Your task to perform on an android device: Search for a 24-inch cordless drill. Image 0: 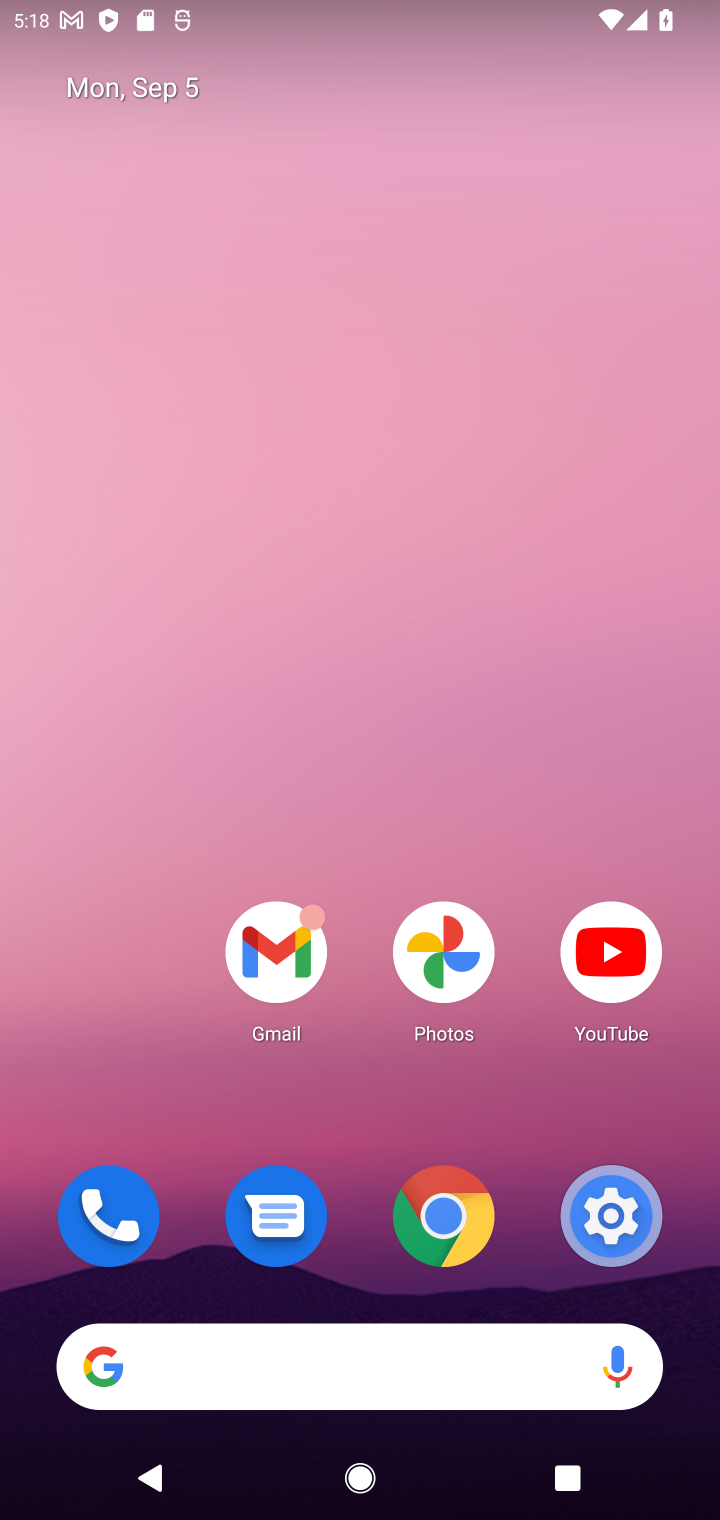
Step 0: drag from (367, 1146) to (147, 46)
Your task to perform on an android device: Search for a 24-inch cordless drill. Image 1: 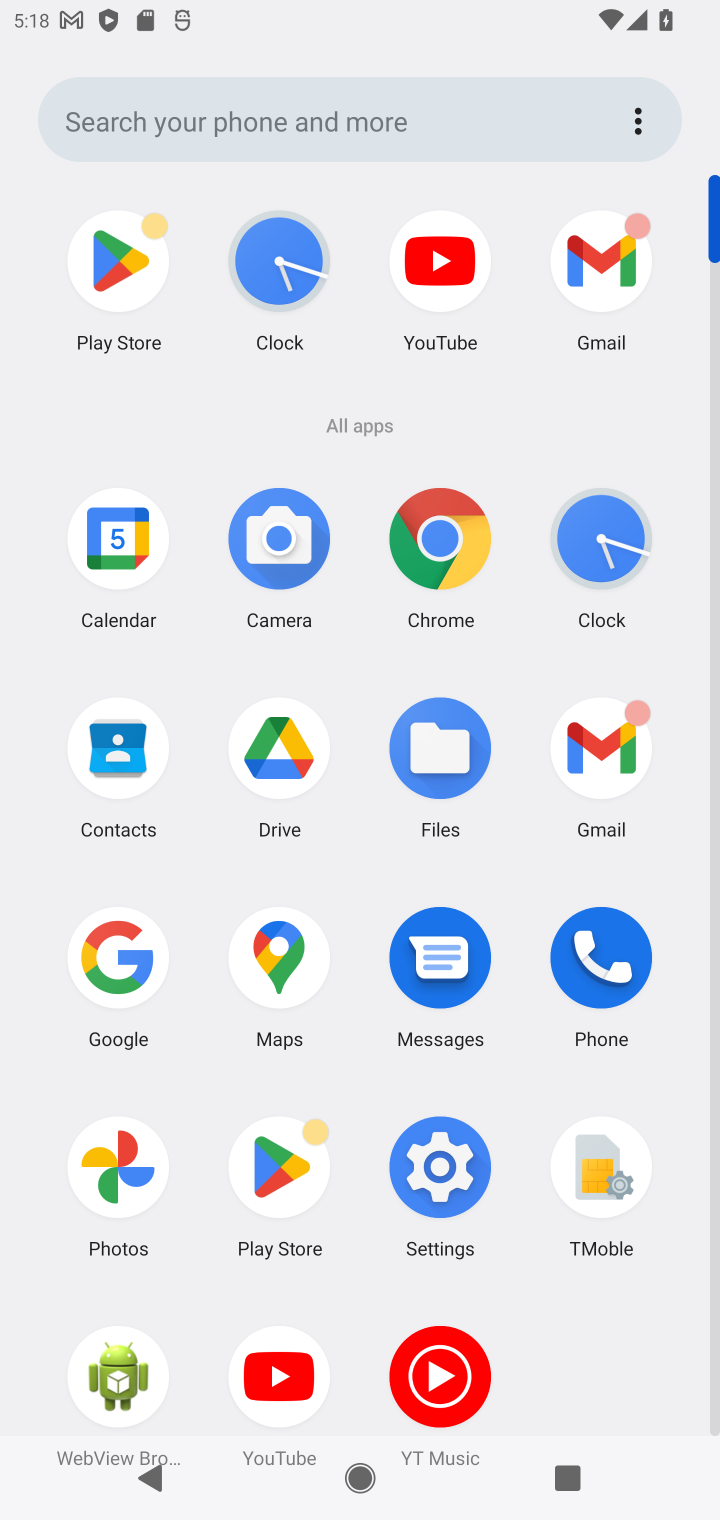
Step 1: click (427, 532)
Your task to perform on an android device: Search for a 24-inch cordless drill. Image 2: 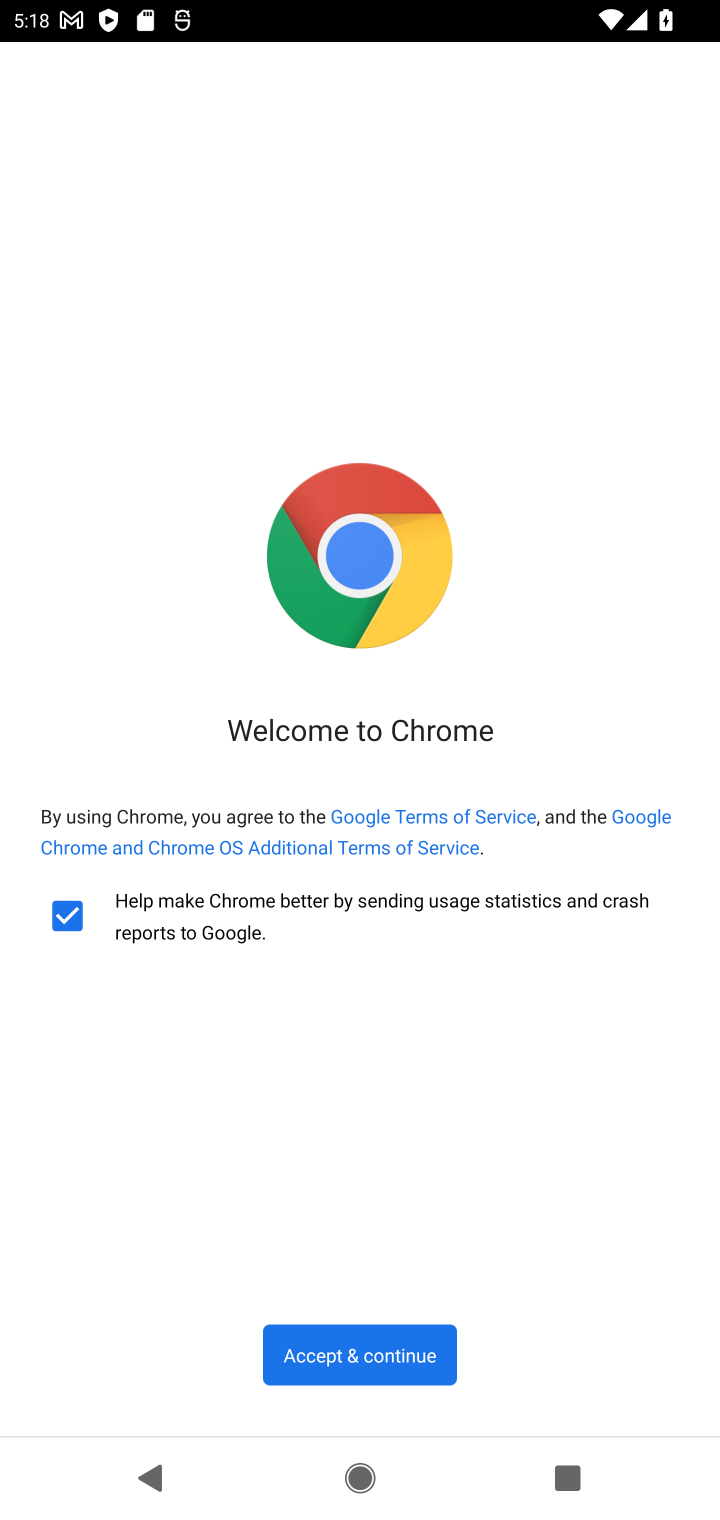
Step 2: click (345, 1347)
Your task to perform on an android device: Search for a 24-inch cordless drill. Image 3: 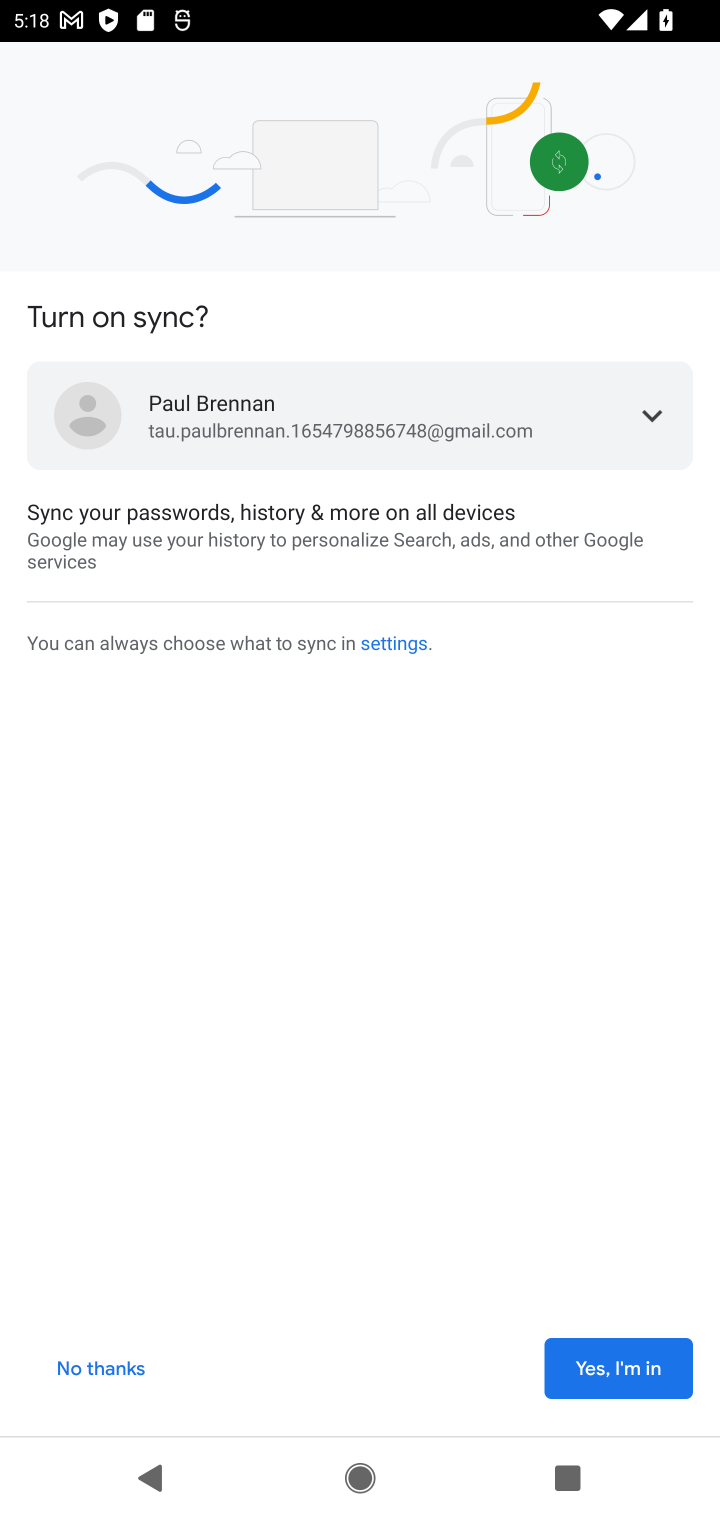
Step 3: click (641, 1365)
Your task to perform on an android device: Search for a 24-inch cordless drill. Image 4: 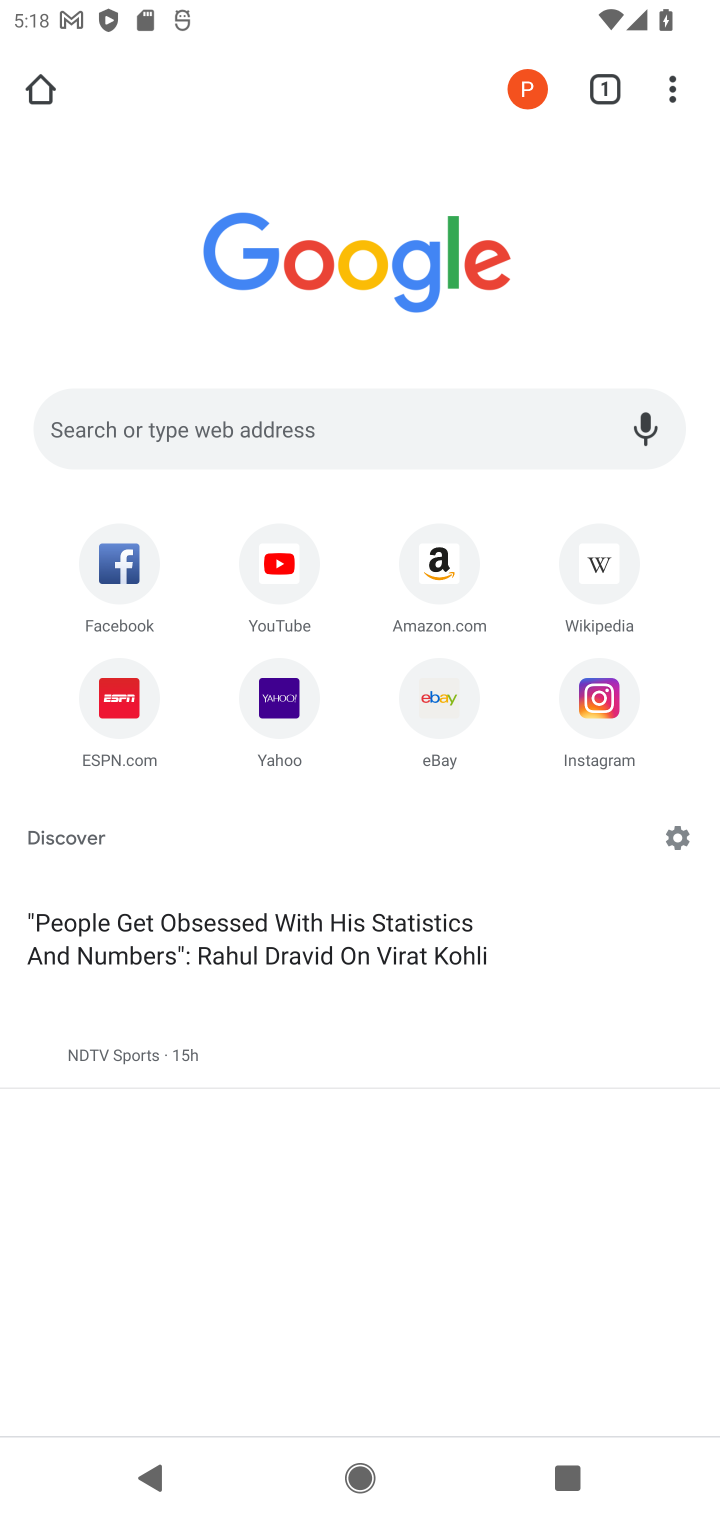
Step 4: click (238, 416)
Your task to perform on an android device: Search for a 24-inch cordless drill. Image 5: 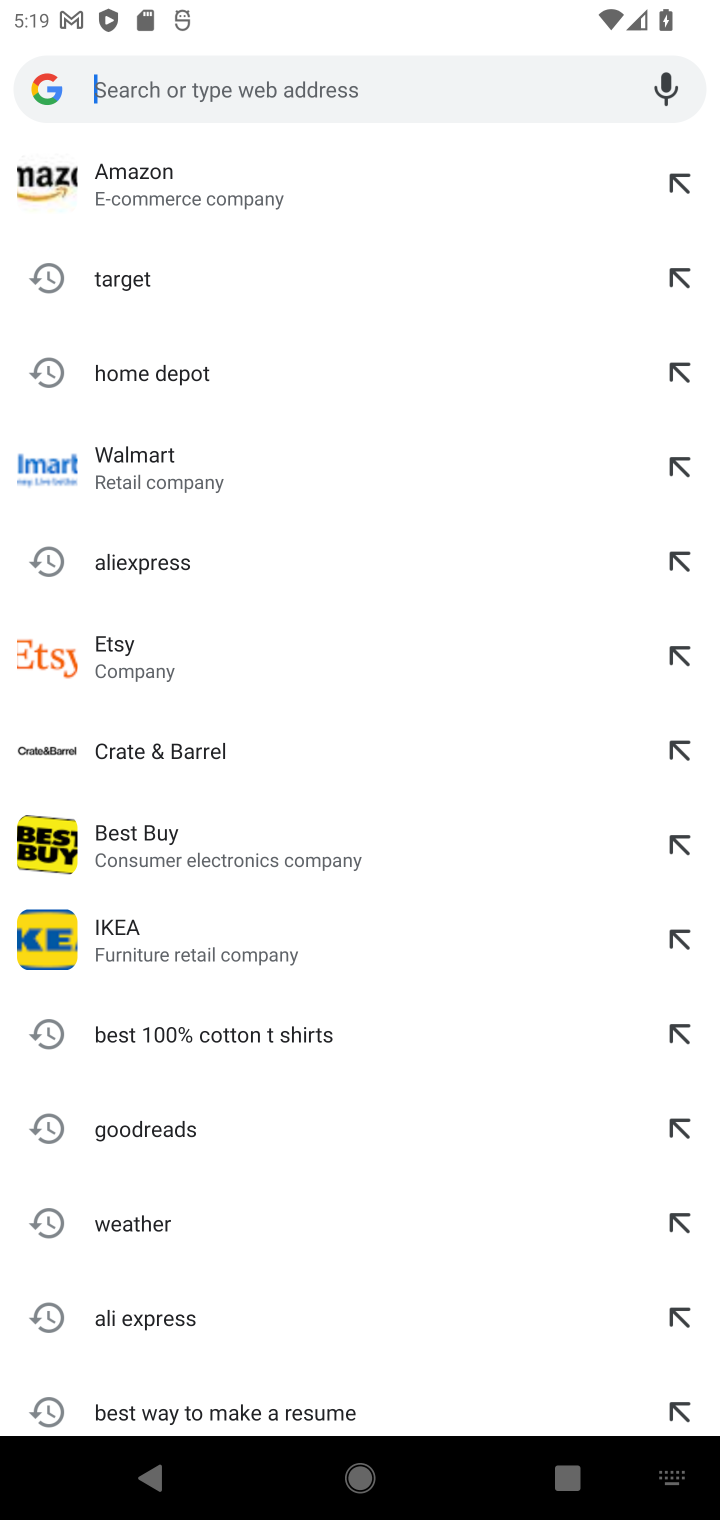
Step 5: type "24-inch cordless drill"
Your task to perform on an android device: Search for a 24-inch cordless drill. Image 6: 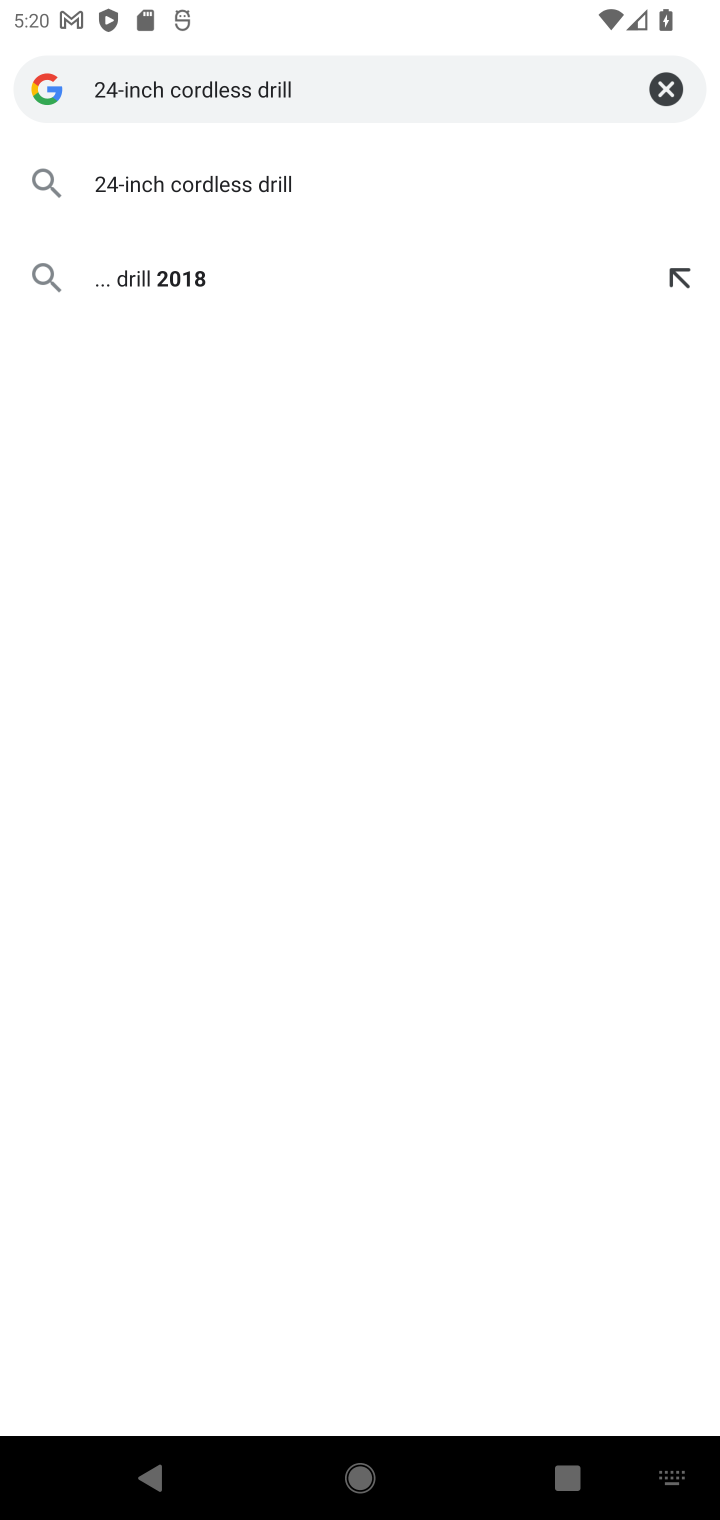
Step 6: click (184, 174)
Your task to perform on an android device: Search for a 24-inch cordless drill. Image 7: 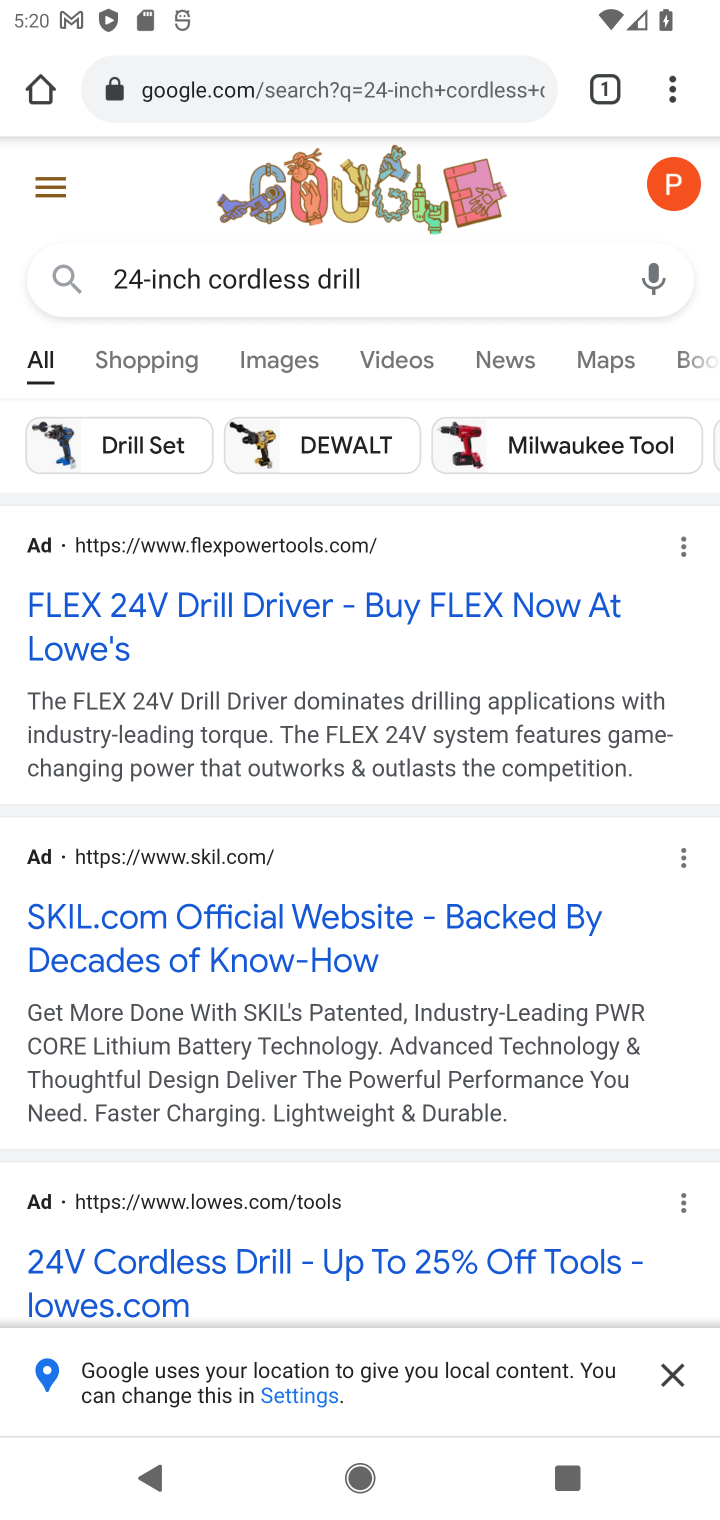
Step 7: click (165, 1268)
Your task to perform on an android device: Search for a 24-inch cordless drill. Image 8: 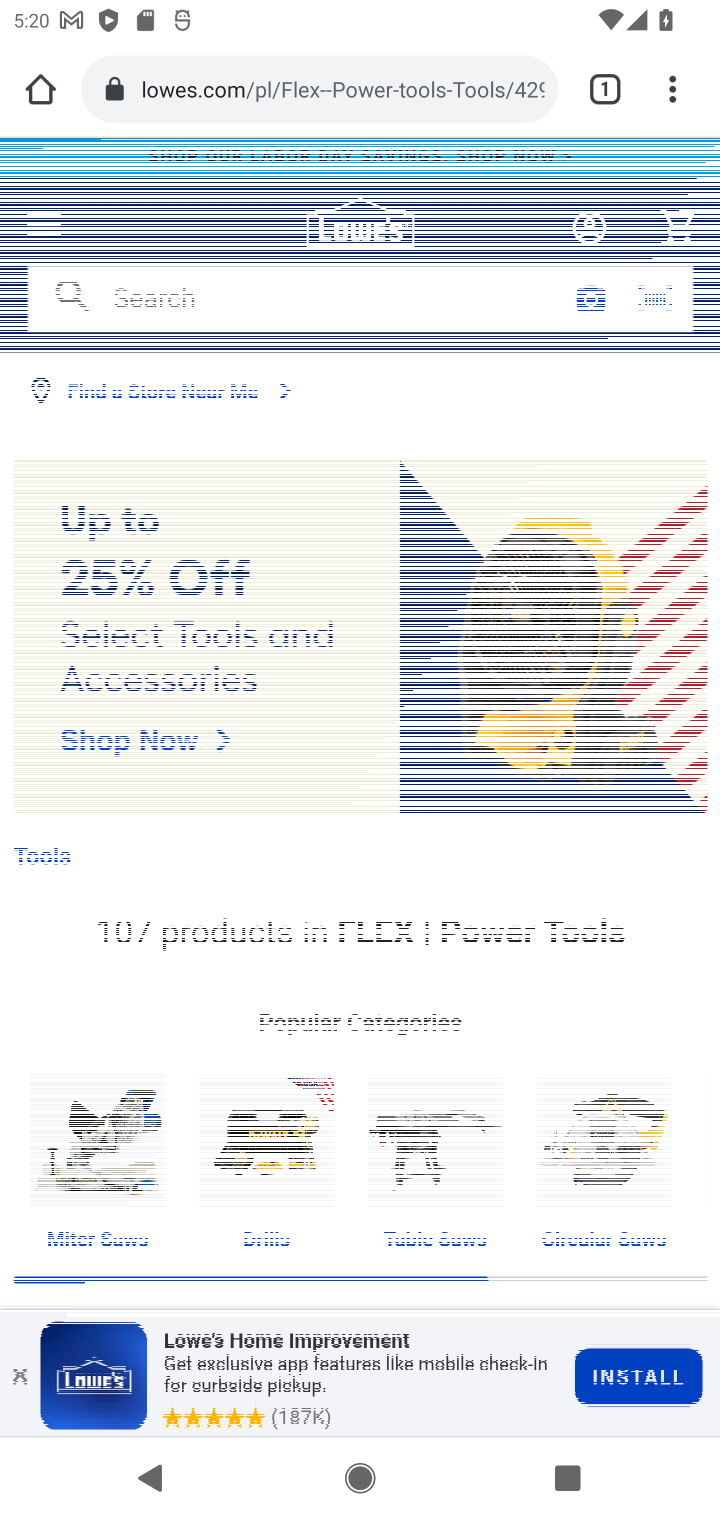
Step 8: drag from (410, 684) to (442, 377)
Your task to perform on an android device: Search for a 24-inch cordless drill. Image 9: 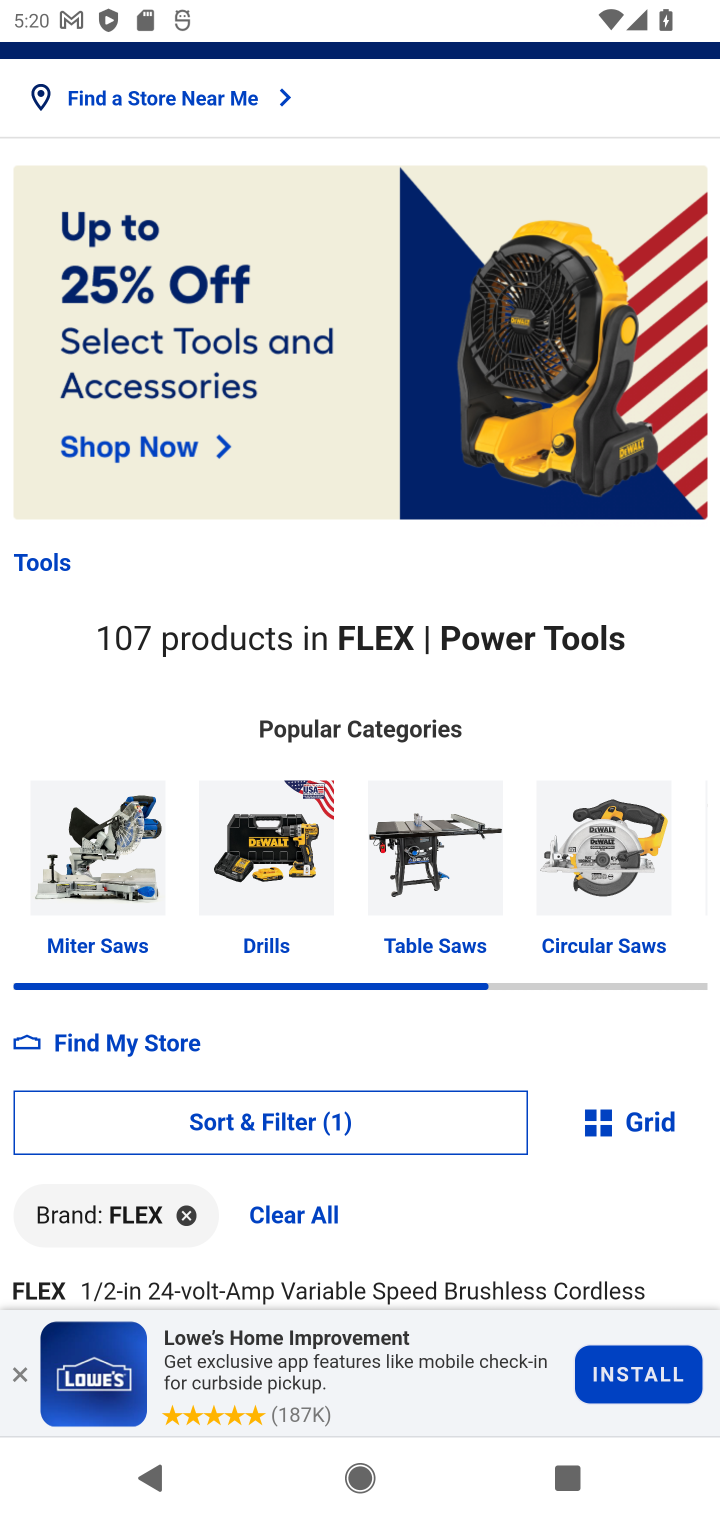
Step 9: drag from (380, 1157) to (425, 308)
Your task to perform on an android device: Search for a 24-inch cordless drill. Image 10: 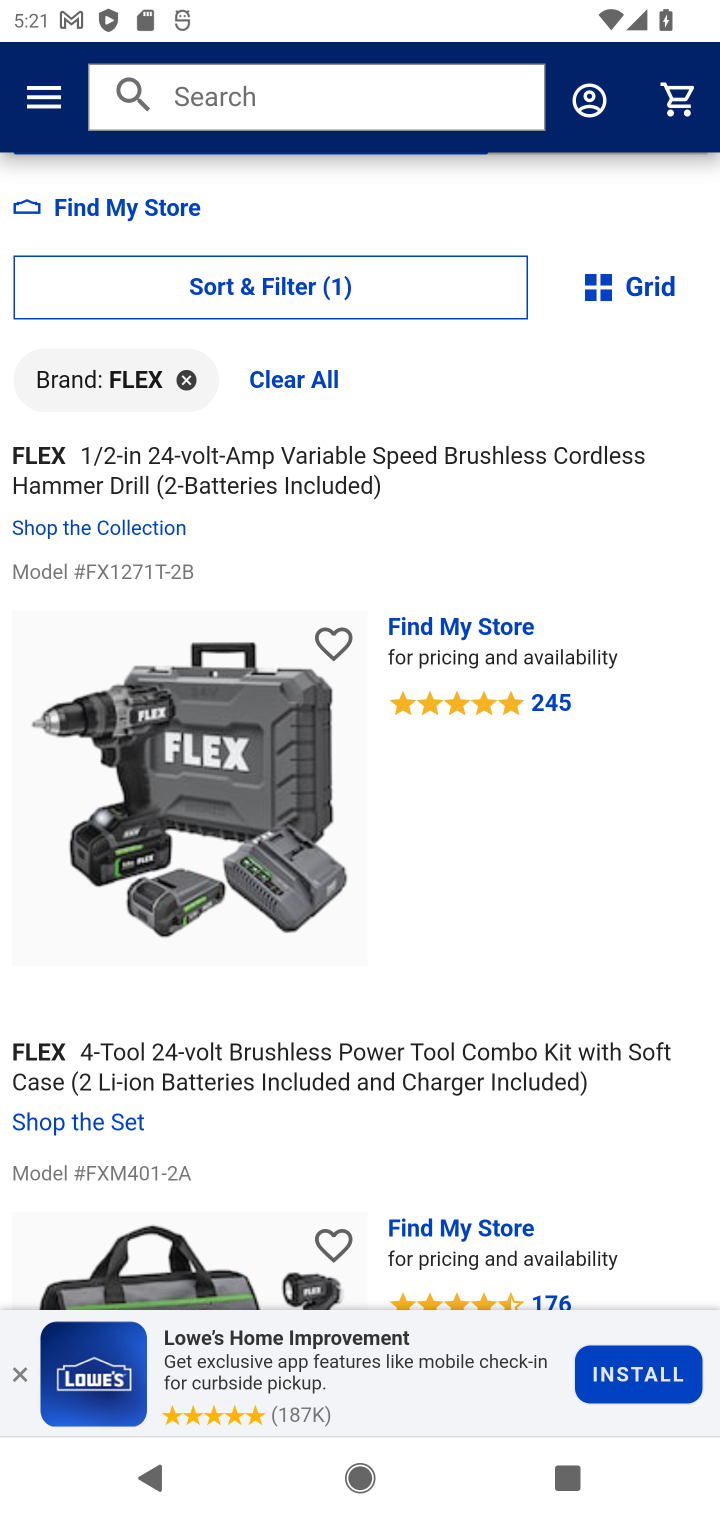
Step 10: drag from (361, 1173) to (410, 199)
Your task to perform on an android device: Search for a 24-inch cordless drill. Image 11: 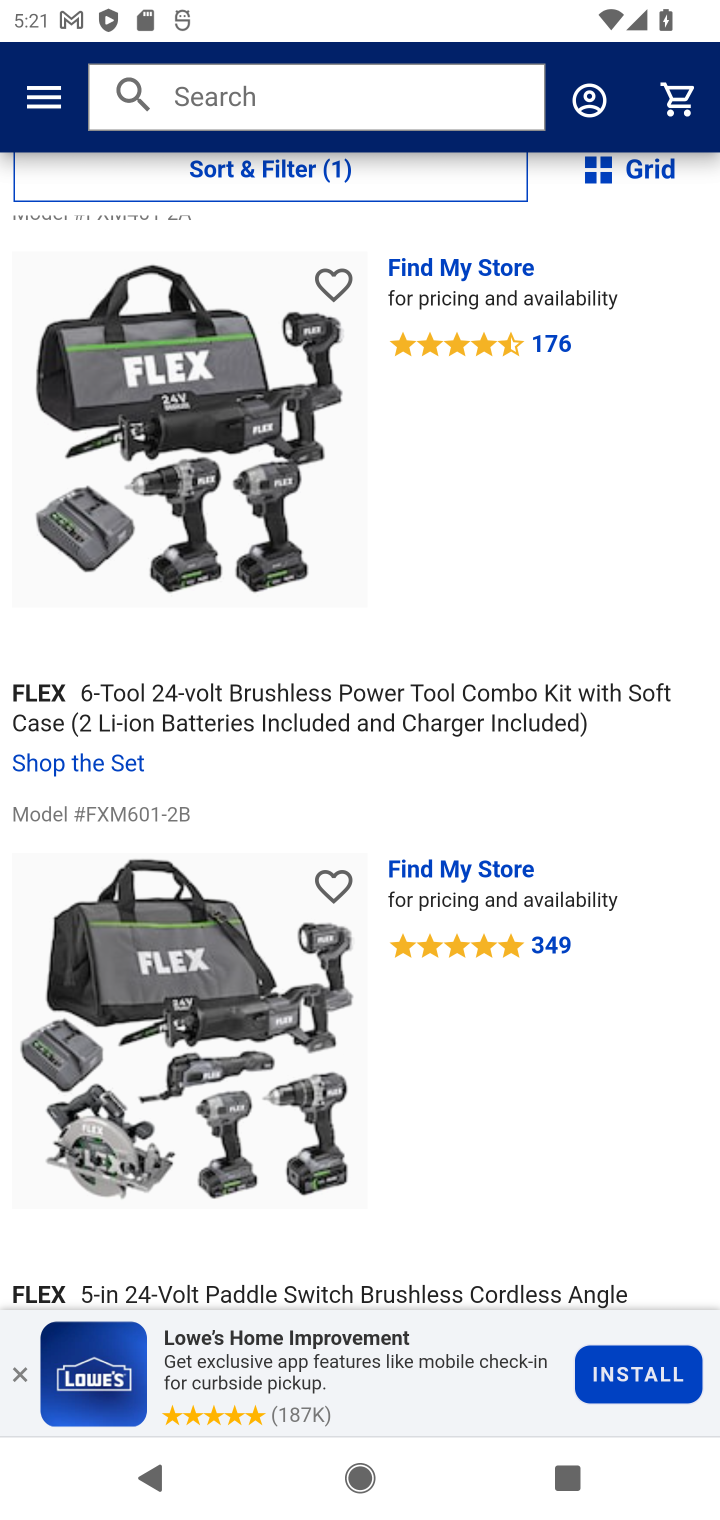
Step 11: drag from (355, 1229) to (381, 342)
Your task to perform on an android device: Search for a 24-inch cordless drill. Image 12: 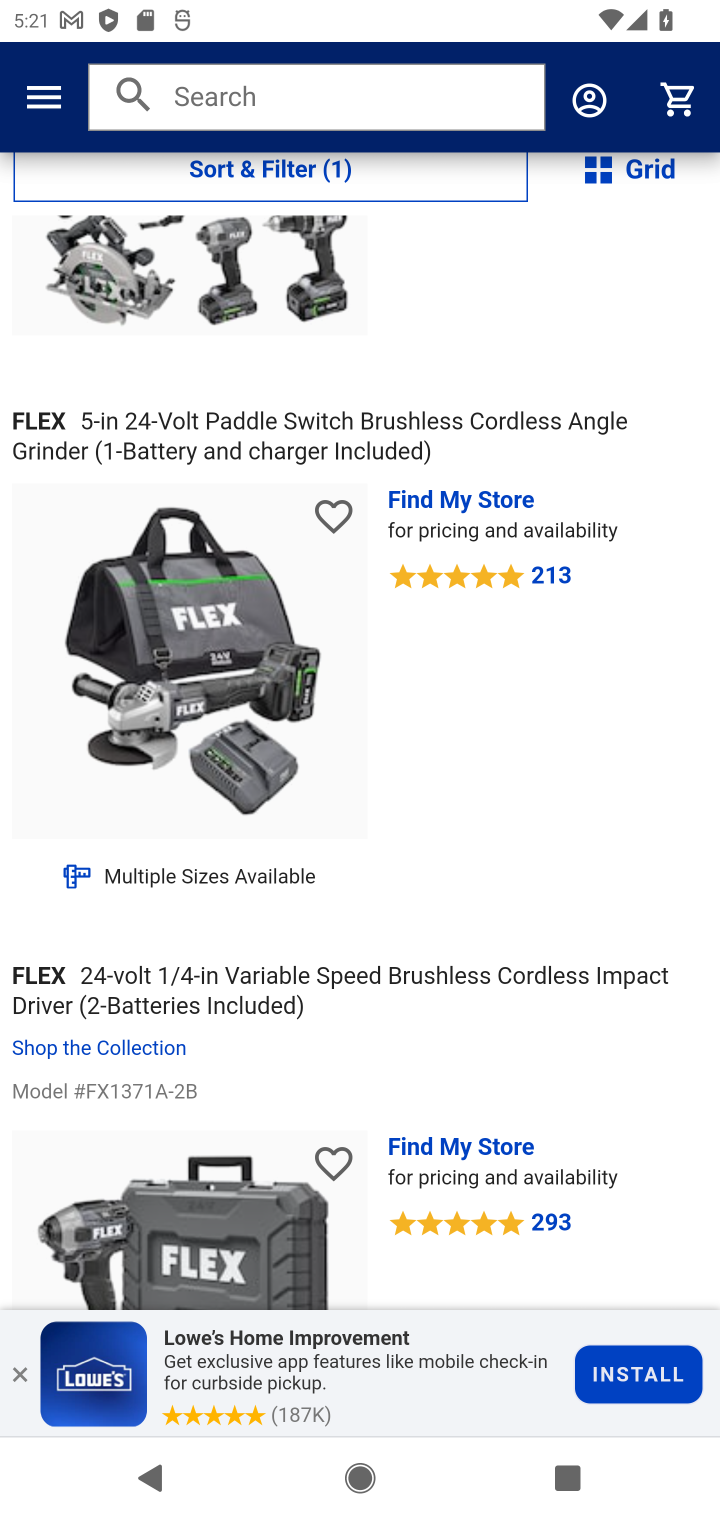
Step 12: drag from (265, 1233) to (259, 421)
Your task to perform on an android device: Search for a 24-inch cordless drill. Image 13: 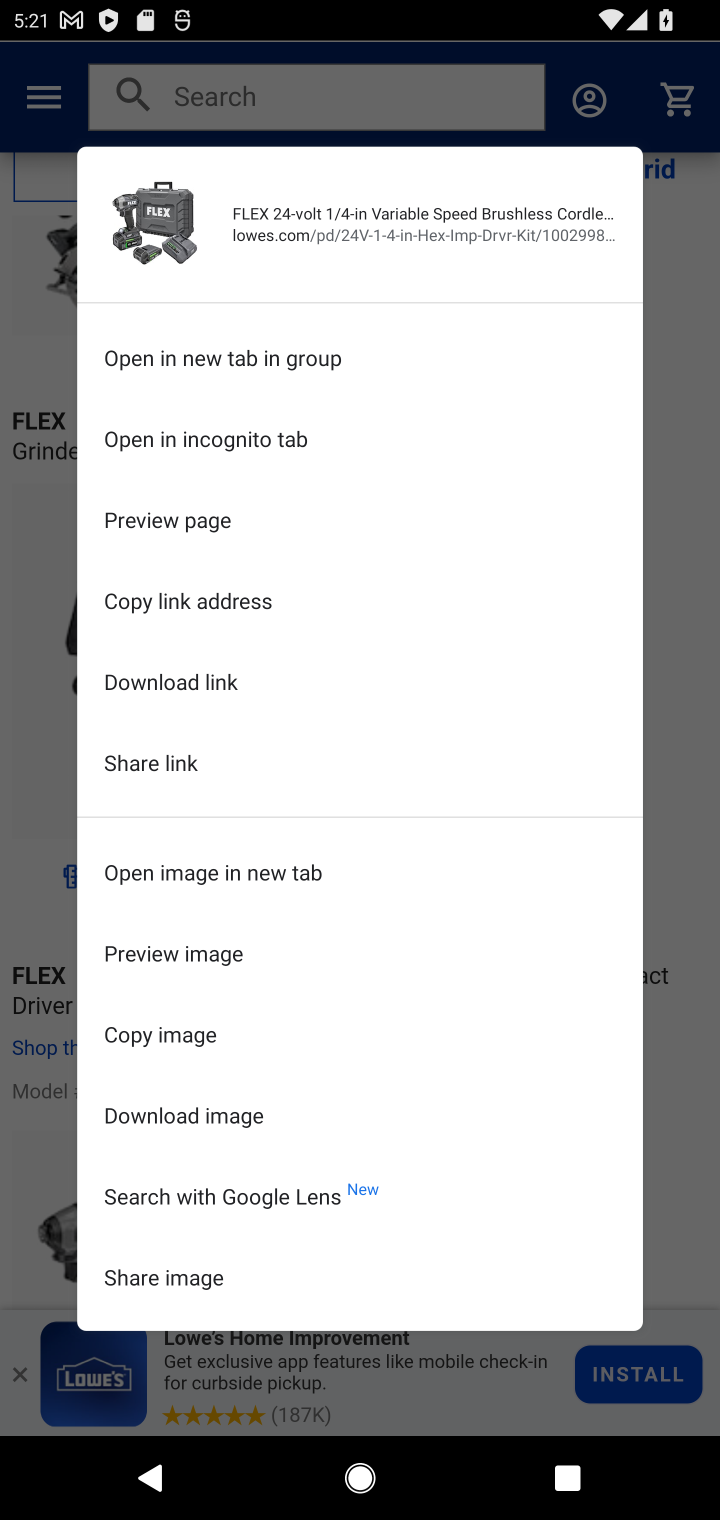
Step 13: click (163, 1367)
Your task to perform on an android device: Search for a 24-inch cordless drill. Image 14: 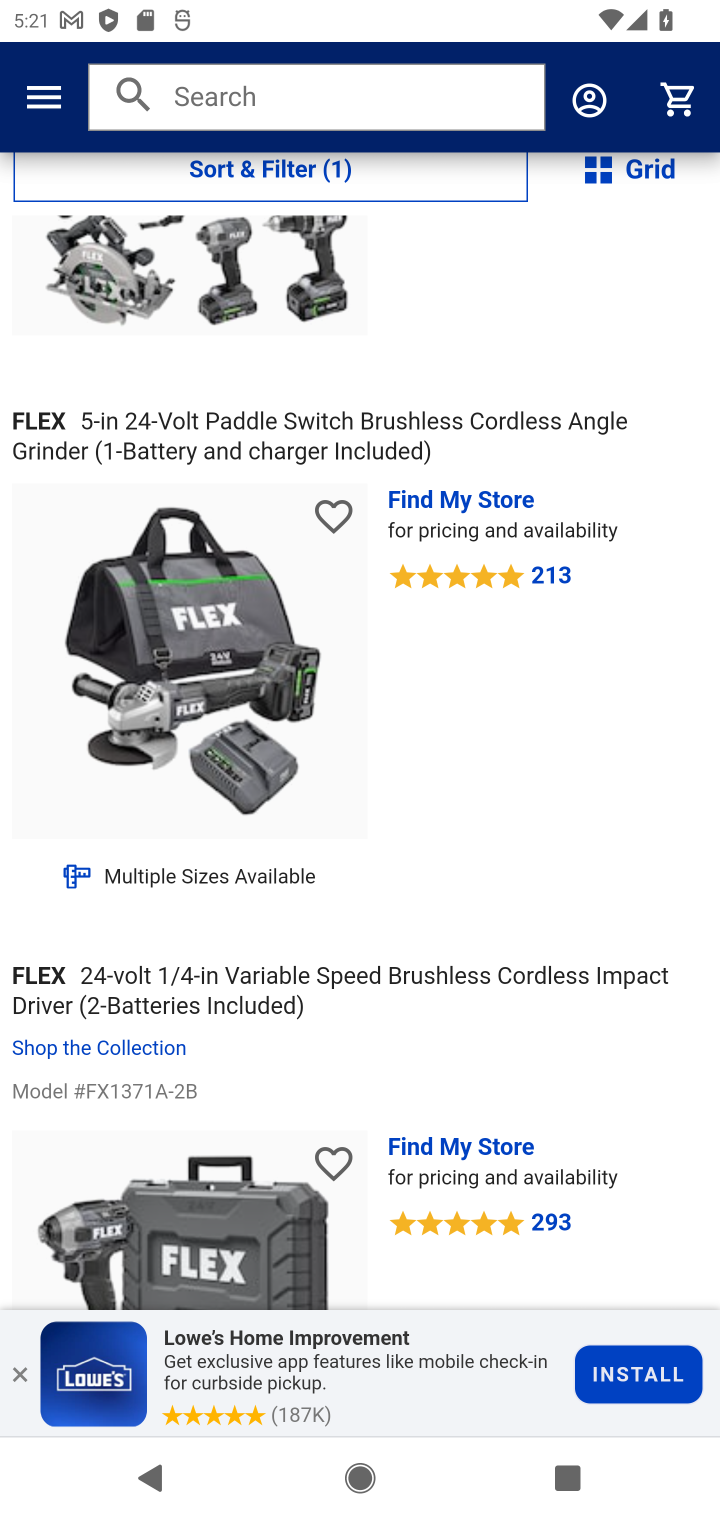
Step 14: task complete